Your task to perform on an android device: Open Amazon Image 0: 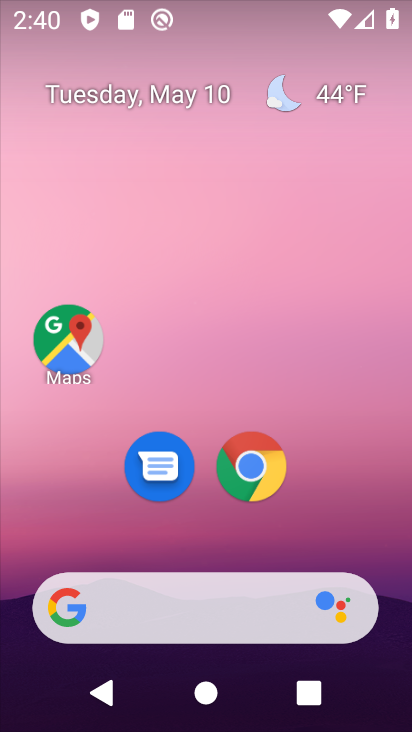
Step 0: click (249, 469)
Your task to perform on an android device: Open Amazon Image 1: 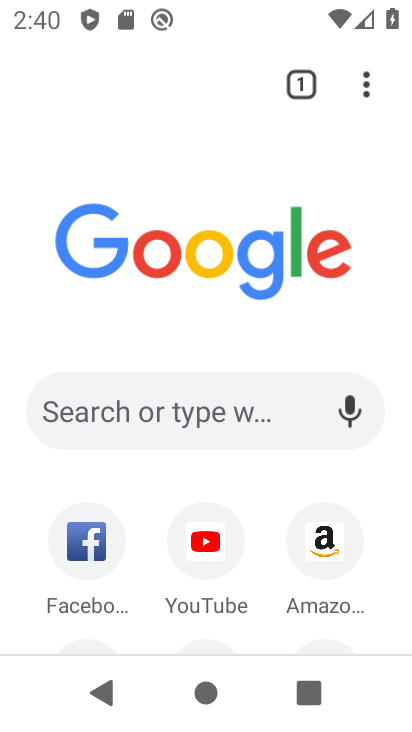
Step 1: click (323, 539)
Your task to perform on an android device: Open Amazon Image 2: 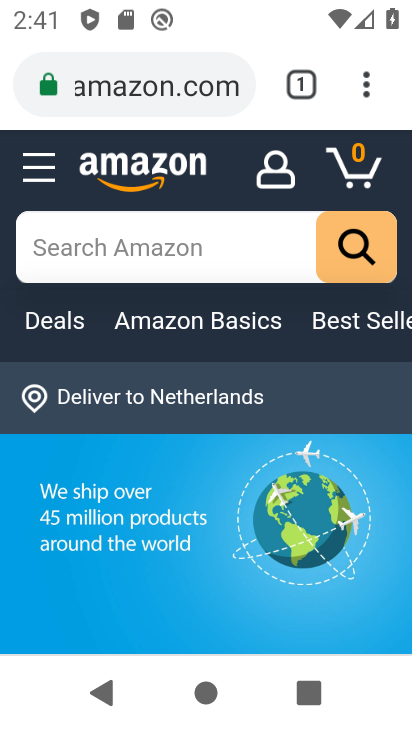
Step 2: task complete